Your task to perform on an android device: change the clock display to analog Image 0: 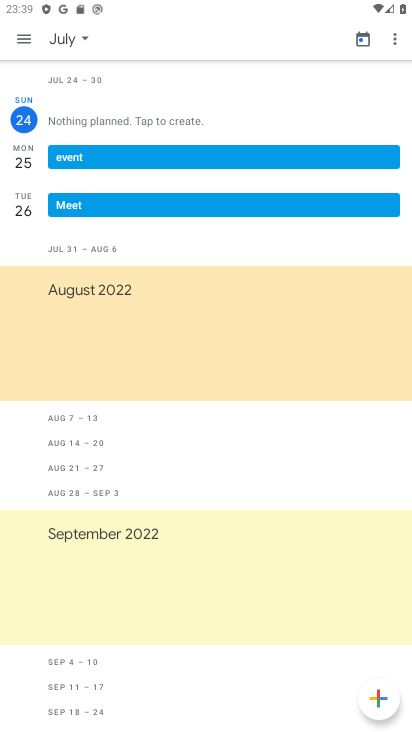
Step 0: press home button
Your task to perform on an android device: change the clock display to analog Image 1: 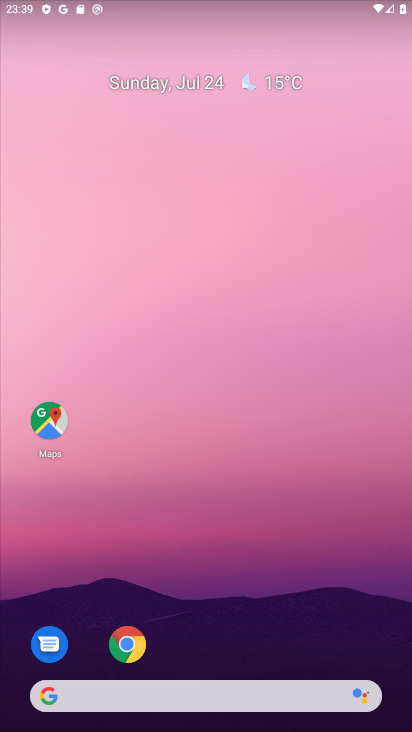
Step 1: drag from (221, 700) to (196, 177)
Your task to perform on an android device: change the clock display to analog Image 2: 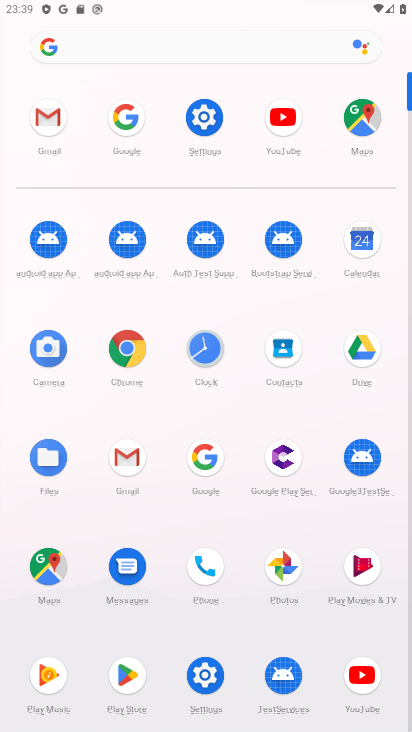
Step 2: click (206, 349)
Your task to perform on an android device: change the clock display to analog Image 3: 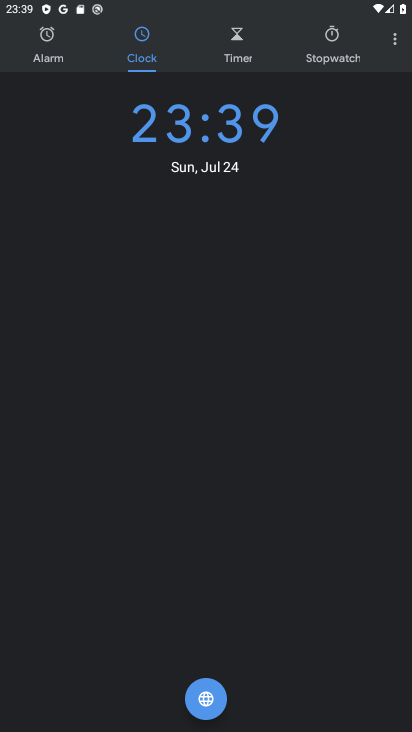
Step 3: click (396, 42)
Your task to perform on an android device: change the clock display to analog Image 4: 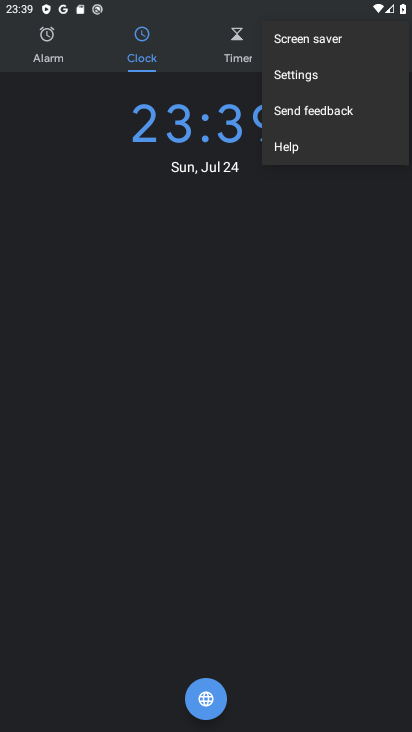
Step 4: click (288, 78)
Your task to perform on an android device: change the clock display to analog Image 5: 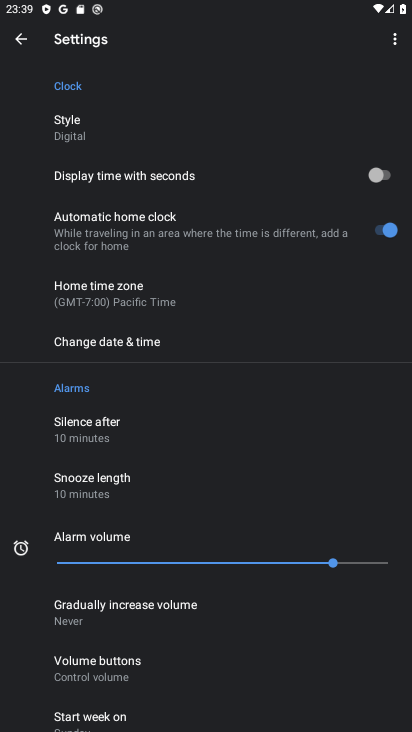
Step 5: click (61, 130)
Your task to perform on an android device: change the clock display to analog Image 6: 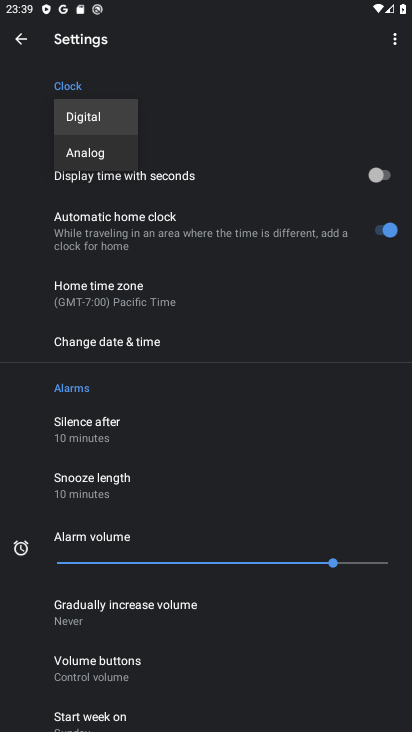
Step 6: click (86, 149)
Your task to perform on an android device: change the clock display to analog Image 7: 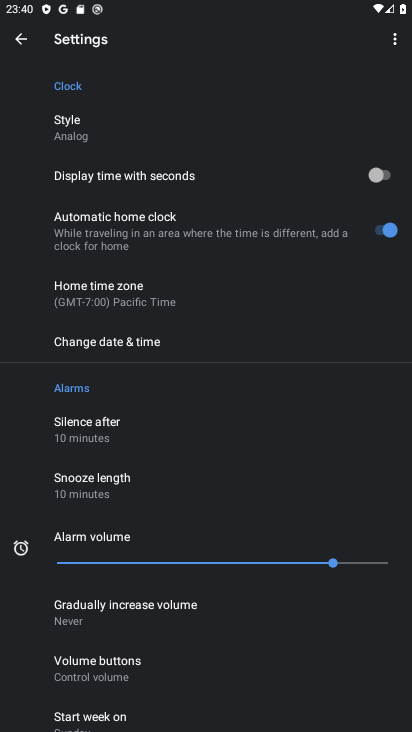
Step 7: task complete